Your task to perform on an android device: allow notifications from all sites in the chrome app Image 0: 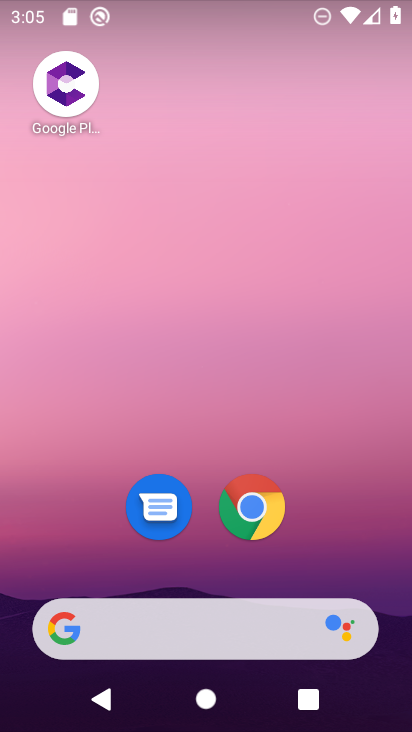
Step 0: drag from (163, 713) to (214, 96)
Your task to perform on an android device: allow notifications from all sites in the chrome app Image 1: 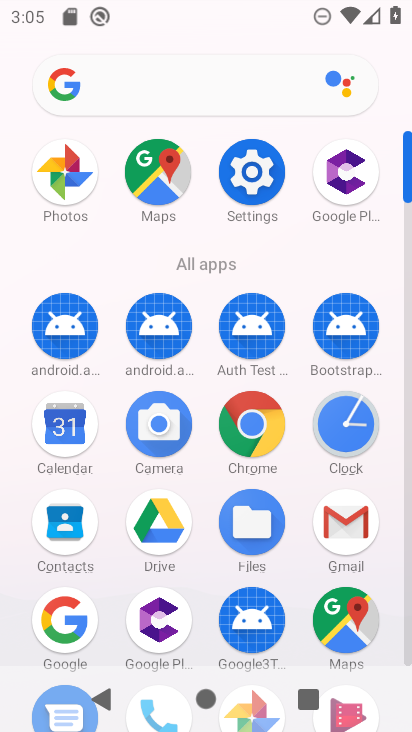
Step 1: click (262, 440)
Your task to perform on an android device: allow notifications from all sites in the chrome app Image 2: 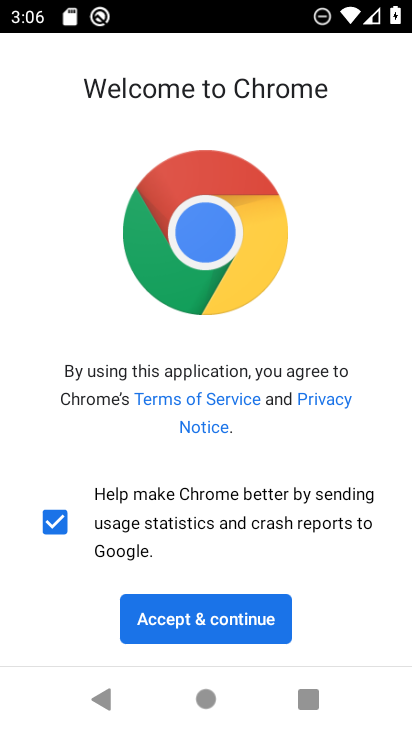
Step 2: click (184, 621)
Your task to perform on an android device: allow notifications from all sites in the chrome app Image 3: 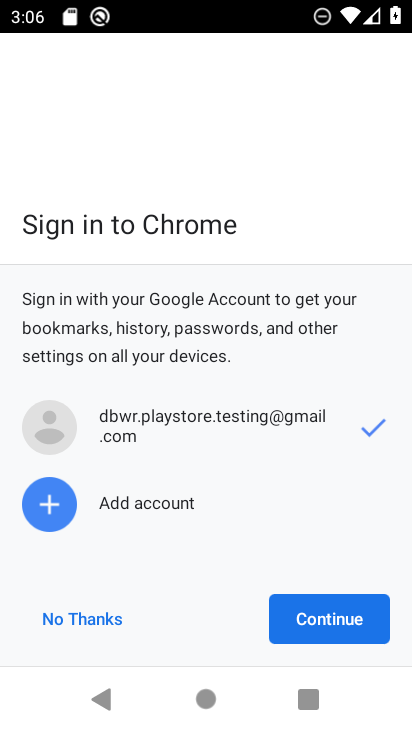
Step 3: click (298, 616)
Your task to perform on an android device: allow notifications from all sites in the chrome app Image 4: 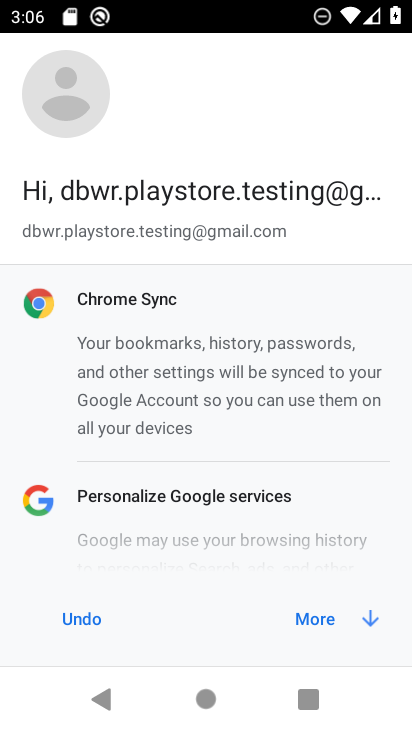
Step 4: click (325, 627)
Your task to perform on an android device: allow notifications from all sites in the chrome app Image 5: 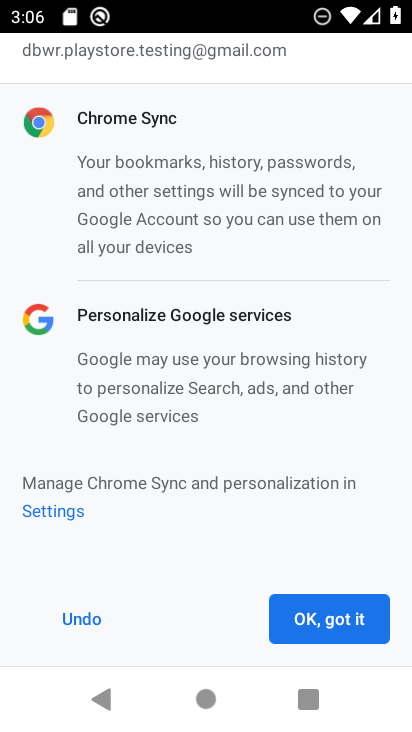
Step 5: click (325, 626)
Your task to perform on an android device: allow notifications from all sites in the chrome app Image 6: 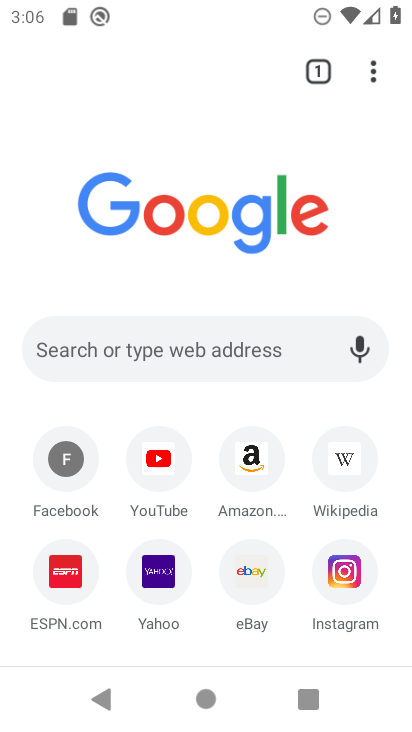
Step 6: click (373, 69)
Your task to perform on an android device: allow notifications from all sites in the chrome app Image 7: 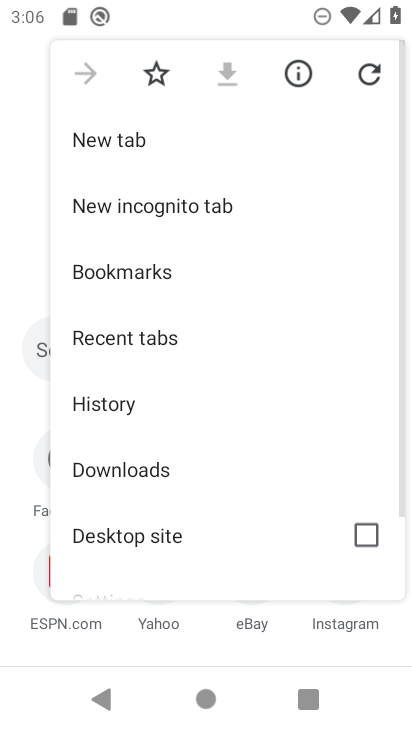
Step 7: drag from (144, 546) to (192, 169)
Your task to perform on an android device: allow notifications from all sites in the chrome app Image 8: 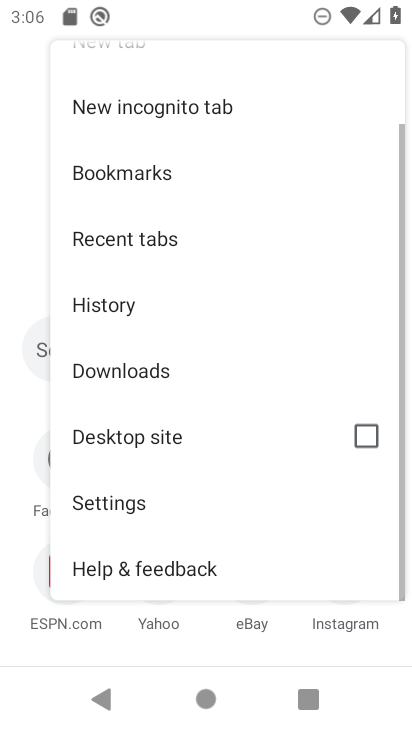
Step 8: click (130, 503)
Your task to perform on an android device: allow notifications from all sites in the chrome app Image 9: 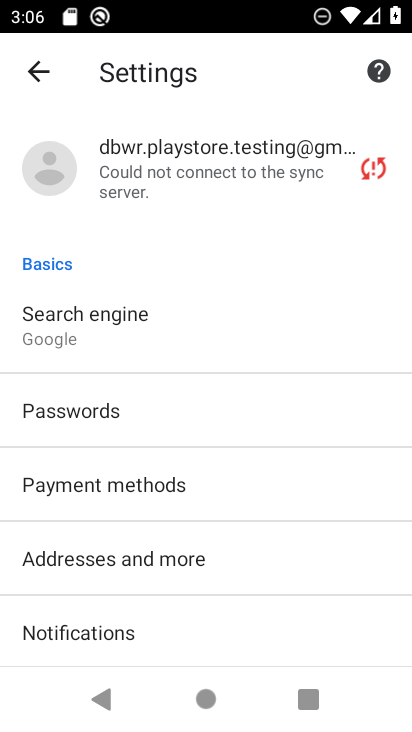
Step 9: click (111, 631)
Your task to perform on an android device: allow notifications from all sites in the chrome app Image 10: 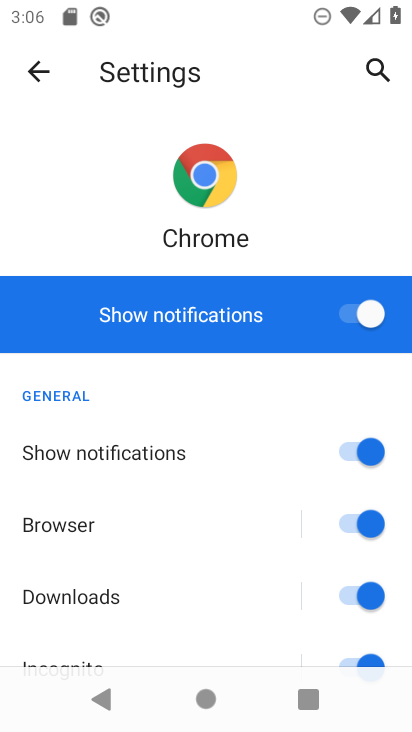
Step 10: drag from (165, 610) to (278, 220)
Your task to perform on an android device: allow notifications from all sites in the chrome app Image 11: 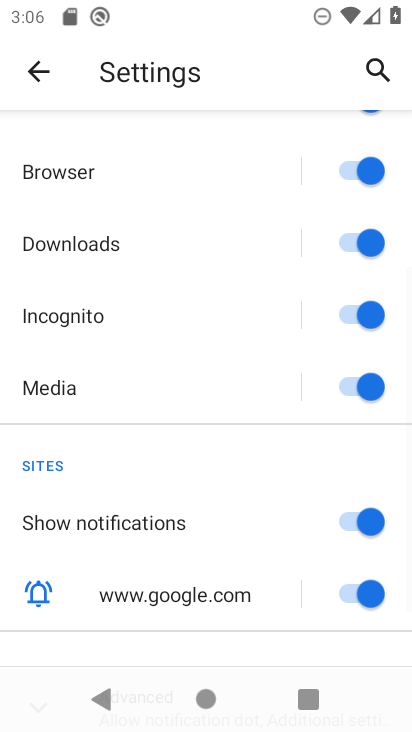
Step 11: drag from (250, 312) to (305, 128)
Your task to perform on an android device: allow notifications from all sites in the chrome app Image 12: 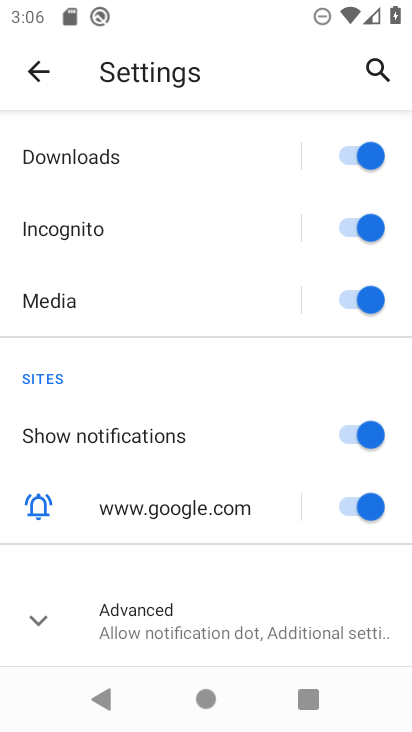
Step 12: click (212, 618)
Your task to perform on an android device: allow notifications from all sites in the chrome app Image 13: 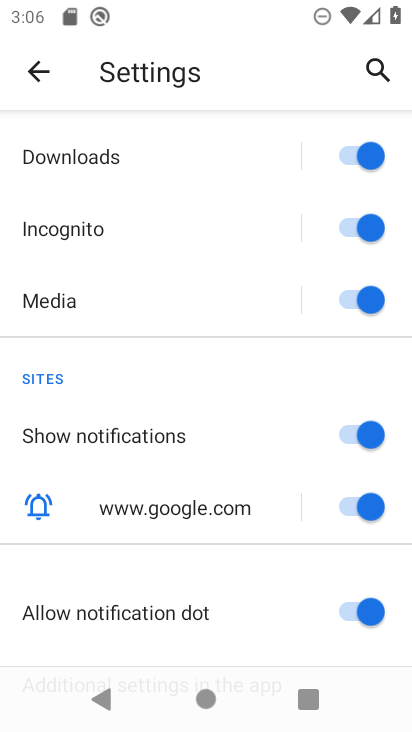
Step 13: task complete